Your task to perform on an android device: Find coffee shops on Maps Image 0: 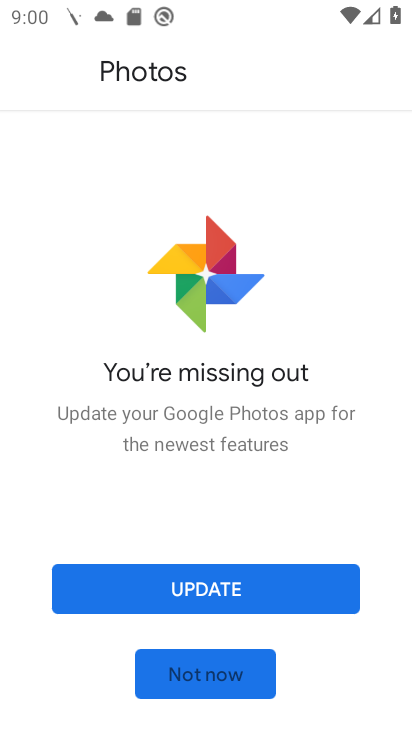
Step 0: press home button
Your task to perform on an android device: Find coffee shops on Maps Image 1: 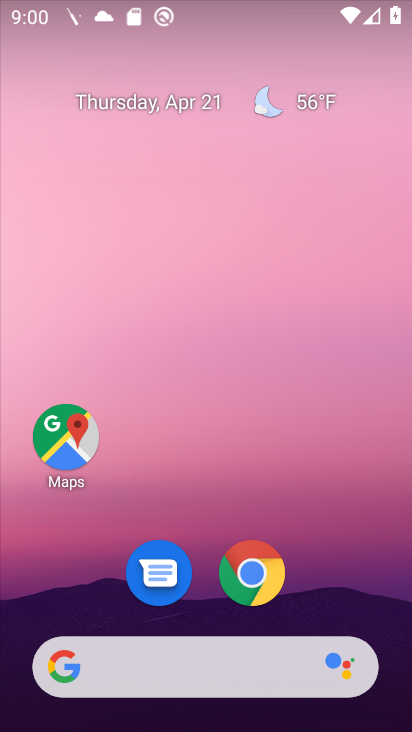
Step 1: click (66, 440)
Your task to perform on an android device: Find coffee shops on Maps Image 2: 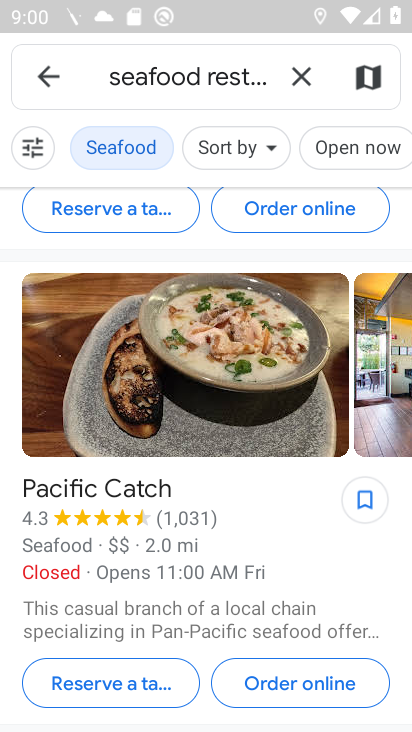
Step 2: click (305, 75)
Your task to perform on an android device: Find coffee shops on Maps Image 3: 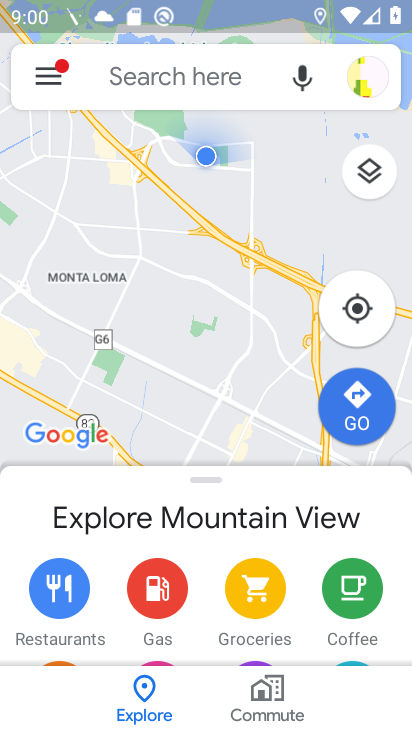
Step 3: click (169, 89)
Your task to perform on an android device: Find coffee shops on Maps Image 4: 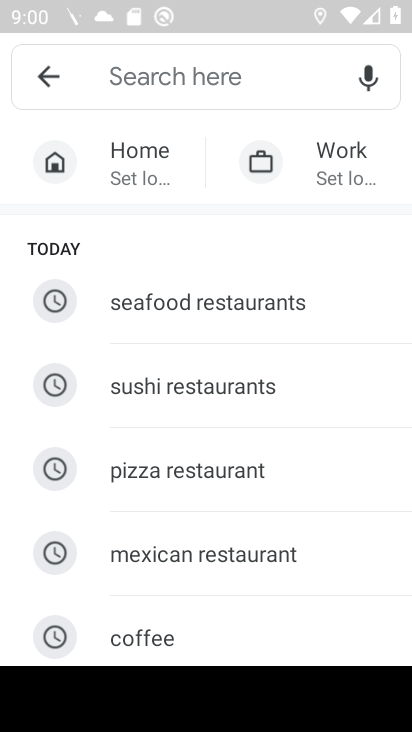
Step 4: type "coffee shops"
Your task to perform on an android device: Find coffee shops on Maps Image 5: 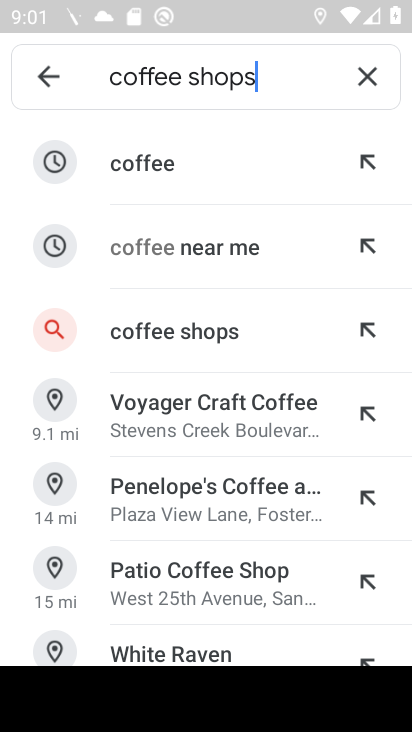
Step 5: click (196, 329)
Your task to perform on an android device: Find coffee shops on Maps Image 6: 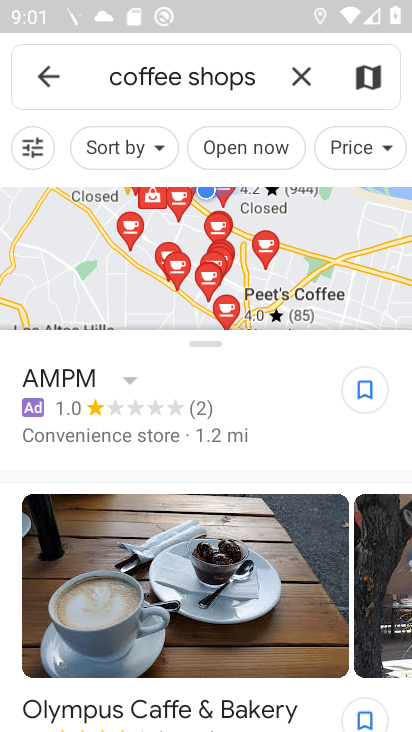
Step 6: task complete